Your task to perform on an android device: open a new tab in the chrome app Image 0: 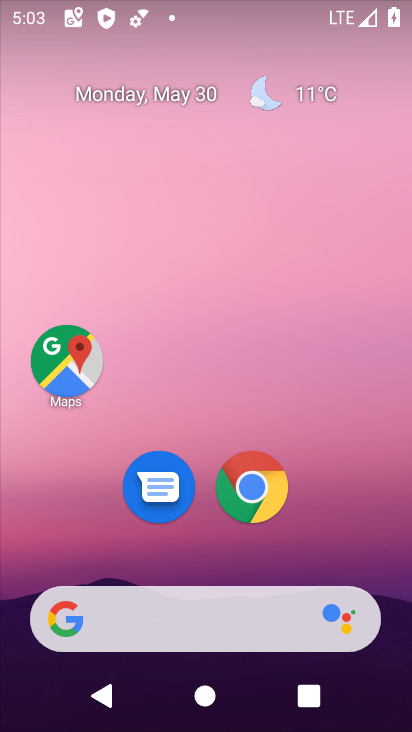
Step 0: click (253, 488)
Your task to perform on an android device: open a new tab in the chrome app Image 1: 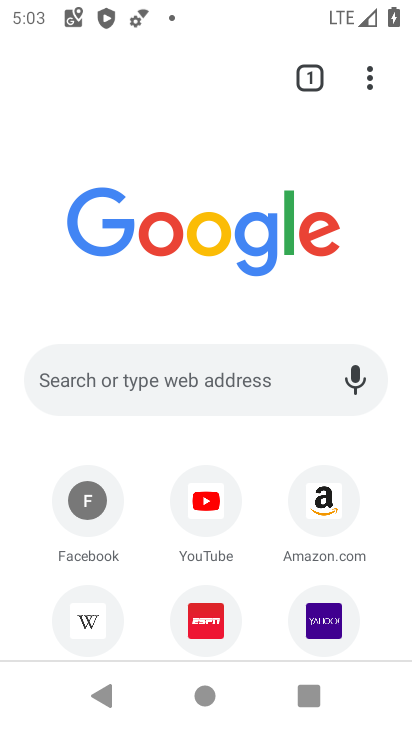
Step 1: click (368, 88)
Your task to perform on an android device: open a new tab in the chrome app Image 2: 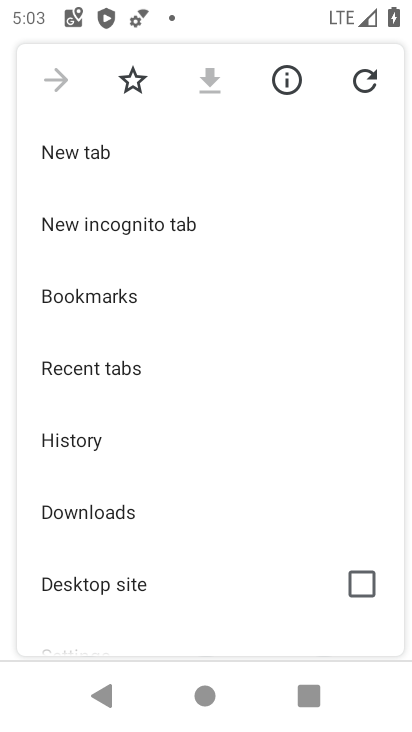
Step 2: click (97, 161)
Your task to perform on an android device: open a new tab in the chrome app Image 3: 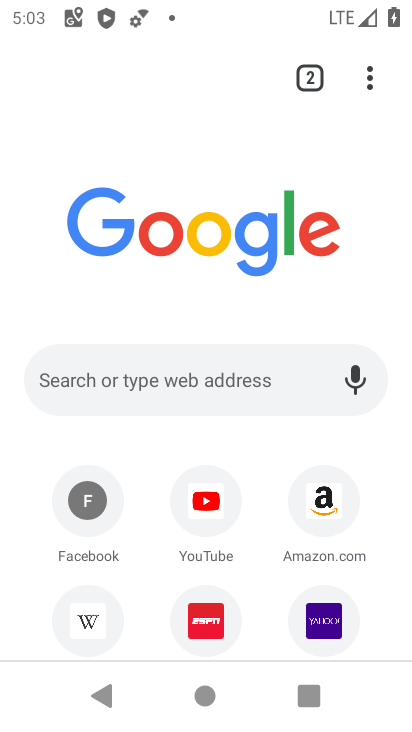
Step 3: task complete